Your task to perform on an android device: install app "Google Pay: Save, Pay, Manage" Image 0: 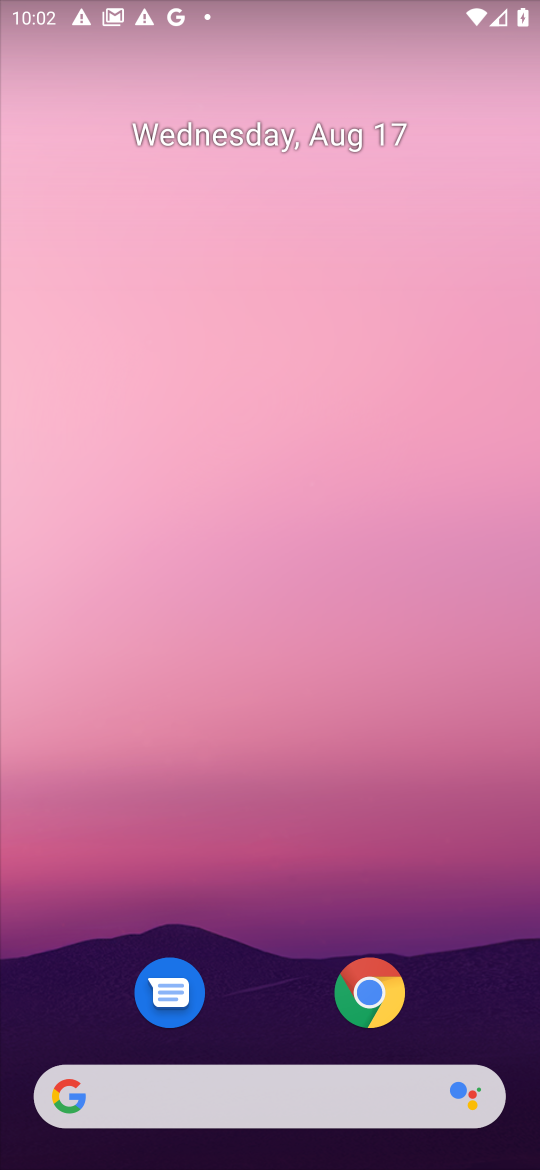
Step 0: drag from (509, 1009) to (193, 0)
Your task to perform on an android device: install app "Google Pay: Save, Pay, Manage" Image 1: 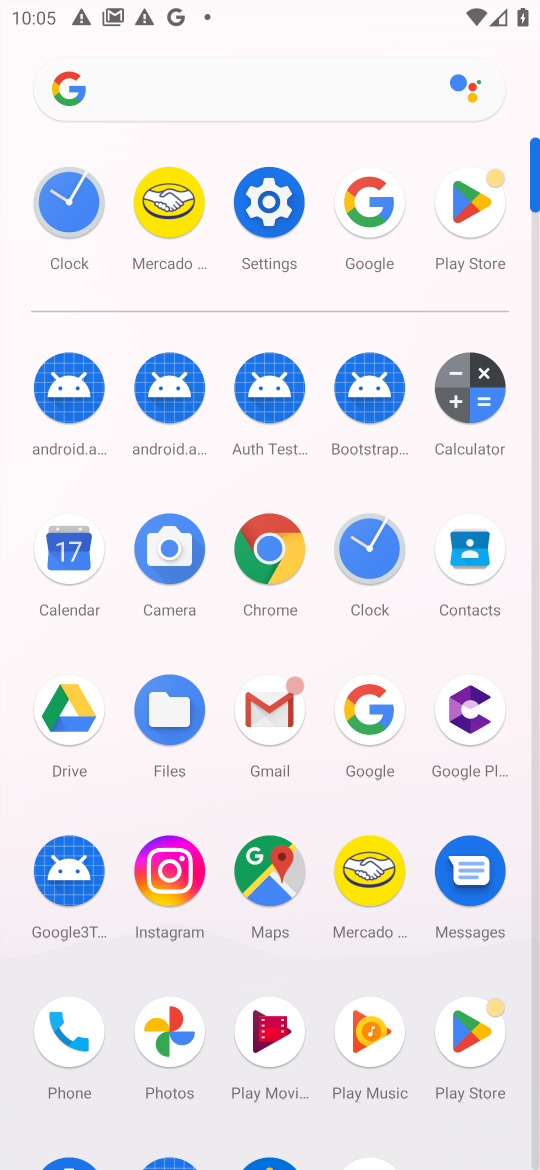
Step 1: click (455, 1051)
Your task to perform on an android device: install app "Google Pay: Save, Pay, Manage" Image 2: 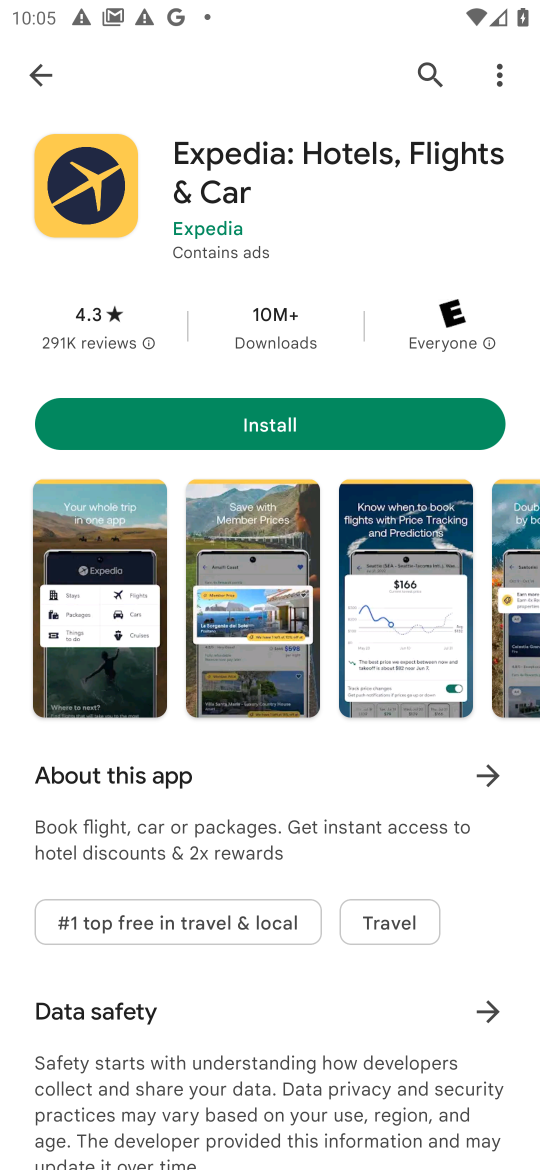
Step 2: press back button
Your task to perform on an android device: install app "Google Pay: Save, Pay, Manage" Image 3: 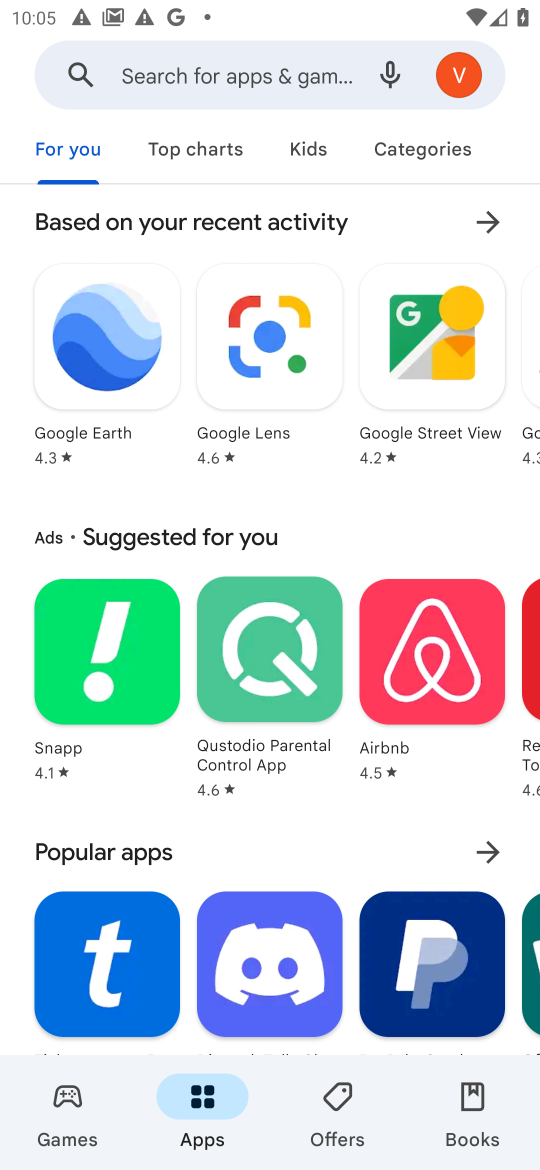
Step 3: click (191, 67)
Your task to perform on an android device: install app "Google Pay: Save, Pay, Manage" Image 4: 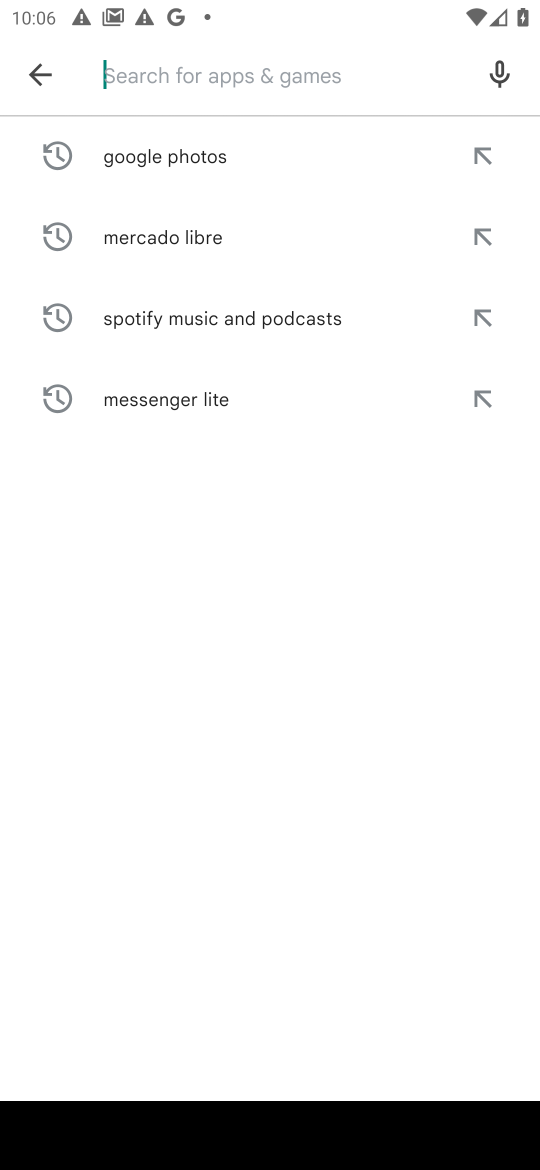
Step 4: type "Google Pay: Save, Pay, Manage"
Your task to perform on an android device: install app "Google Pay: Save, Pay, Manage" Image 5: 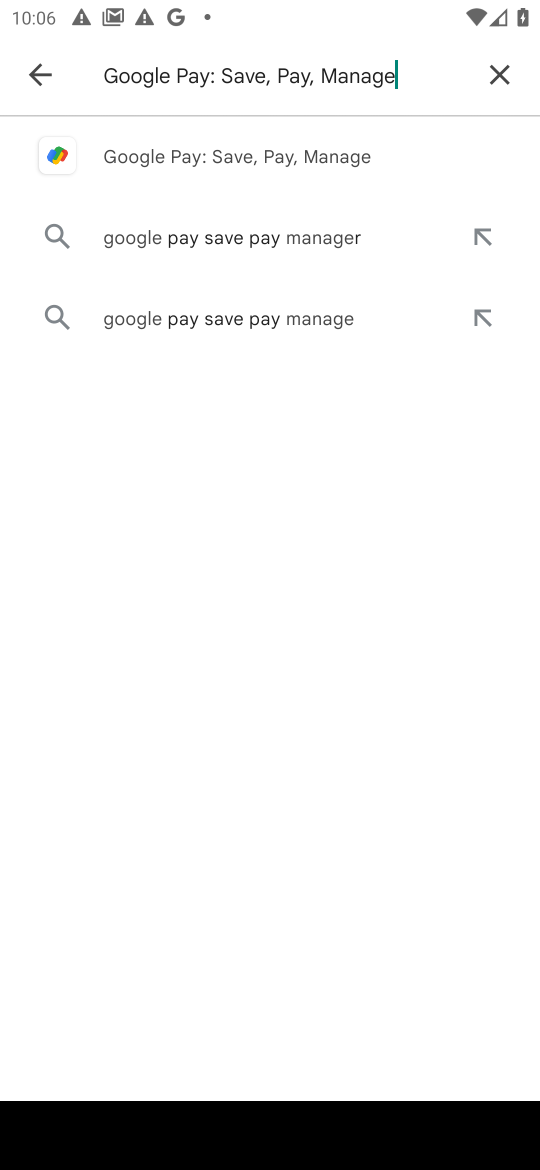
Step 5: click (181, 164)
Your task to perform on an android device: install app "Google Pay: Save, Pay, Manage" Image 6: 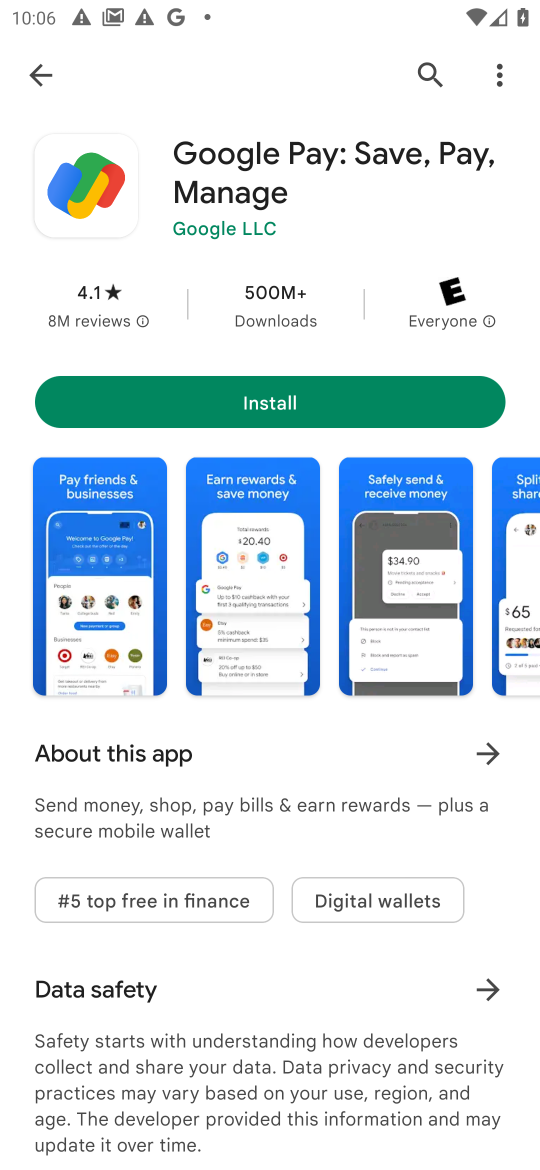
Step 6: click (310, 415)
Your task to perform on an android device: install app "Google Pay: Save, Pay, Manage" Image 7: 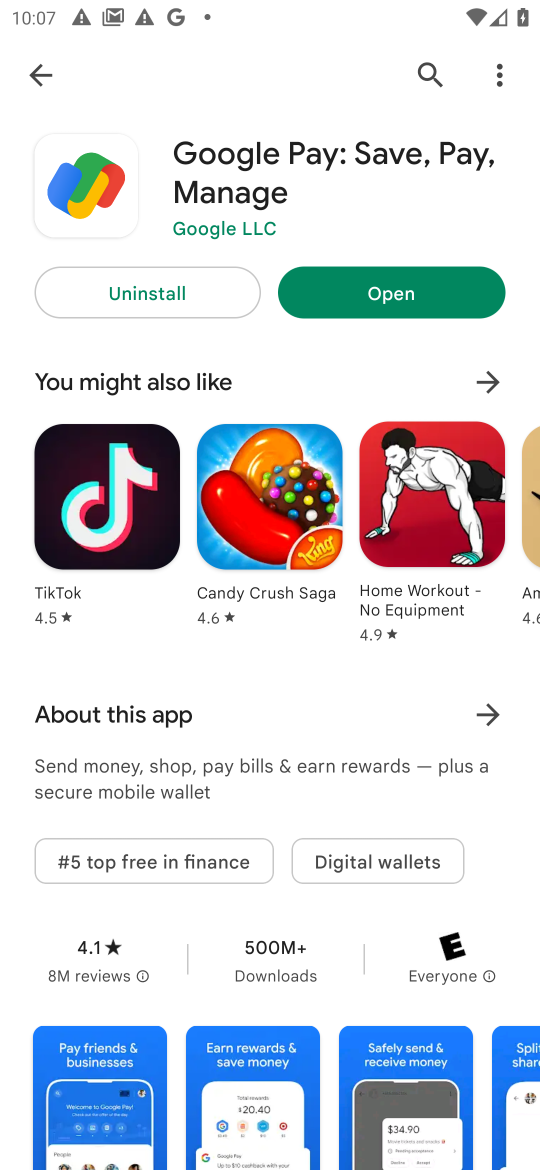
Step 7: task complete